Your task to perform on an android device: all mails in gmail Image 0: 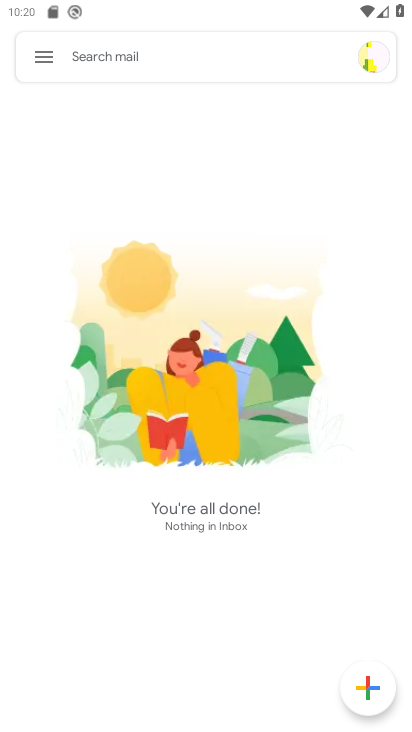
Step 0: press home button
Your task to perform on an android device: all mails in gmail Image 1: 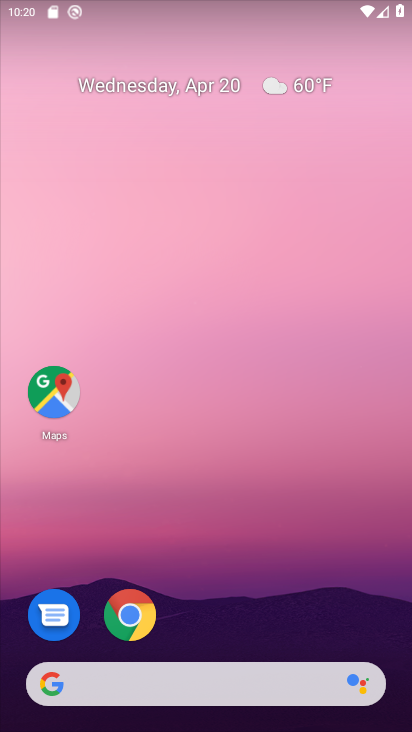
Step 1: drag from (381, 592) to (306, 144)
Your task to perform on an android device: all mails in gmail Image 2: 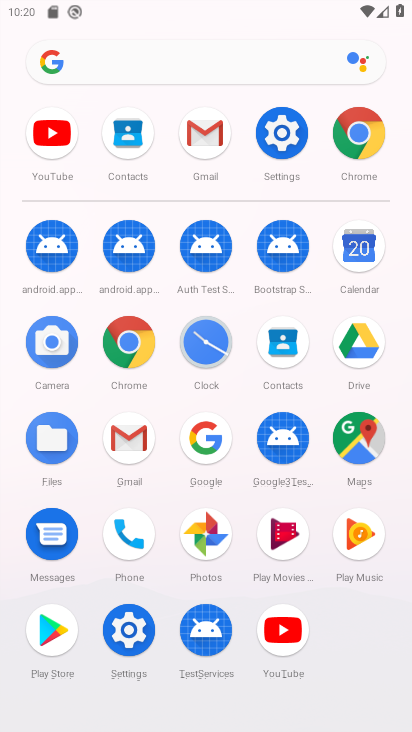
Step 2: click (122, 459)
Your task to perform on an android device: all mails in gmail Image 3: 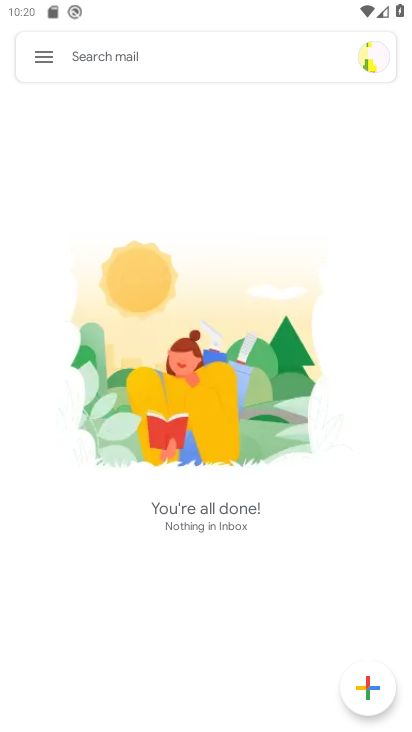
Step 3: click (45, 70)
Your task to perform on an android device: all mails in gmail Image 4: 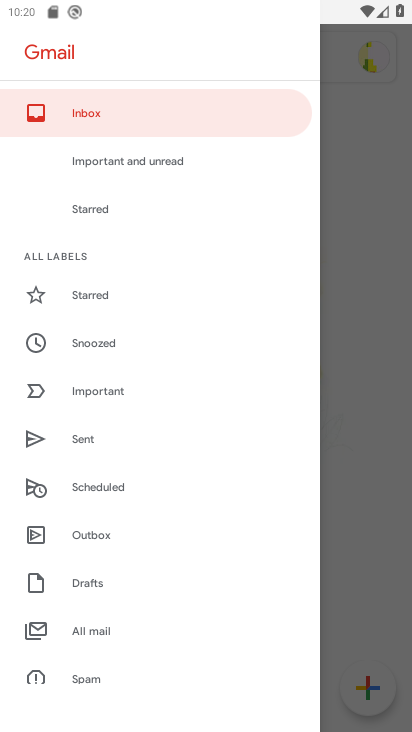
Step 4: click (103, 635)
Your task to perform on an android device: all mails in gmail Image 5: 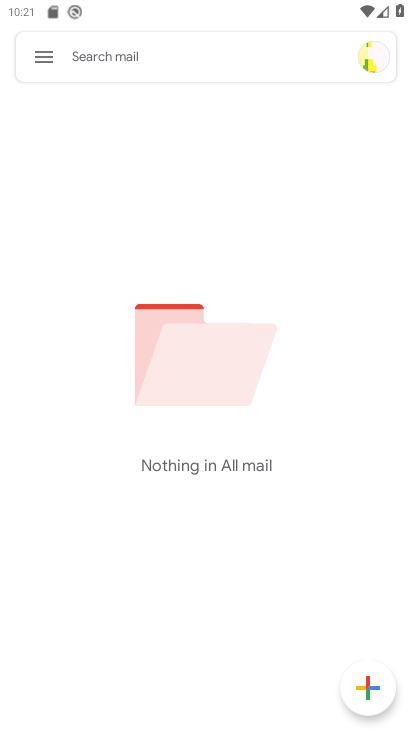
Step 5: task complete